Your task to perform on an android device: Open network settings Image 0: 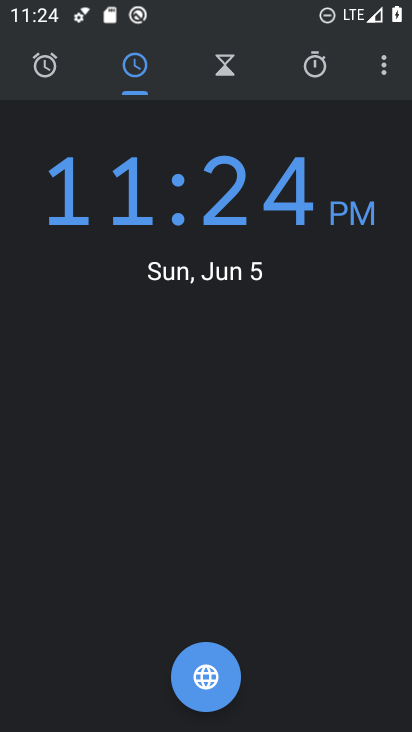
Step 0: drag from (256, 17) to (216, 628)
Your task to perform on an android device: Open network settings Image 1: 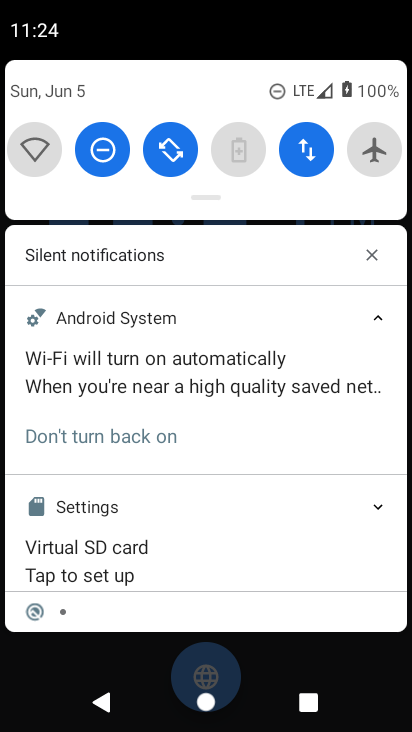
Step 1: click (310, 151)
Your task to perform on an android device: Open network settings Image 2: 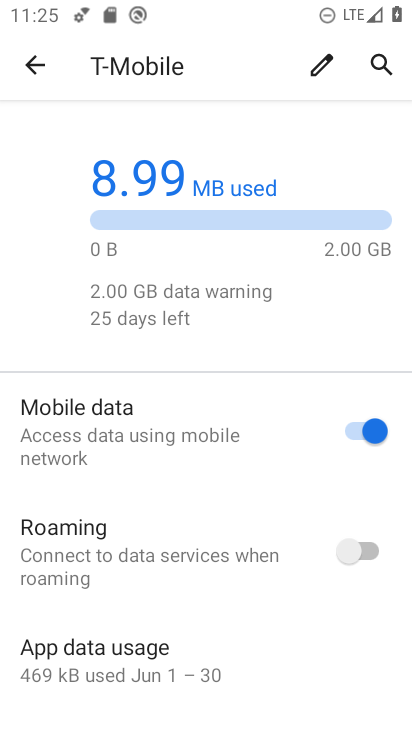
Step 2: task complete